Your task to perform on an android device: see sites visited before in the chrome app Image 0: 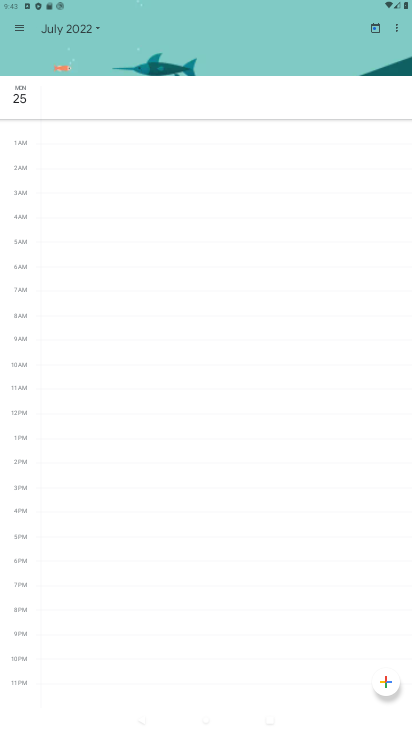
Step 0: press home button
Your task to perform on an android device: see sites visited before in the chrome app Image 1: 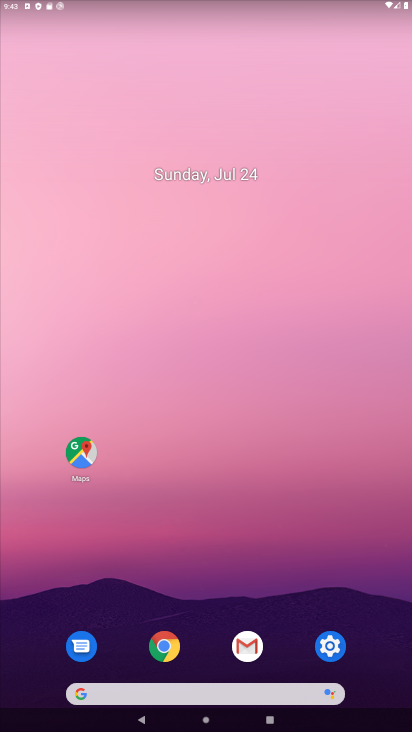
Step 1: click (186, 655)
Your task to perform on an android device: see sites visited before in the chrome app Image 2: 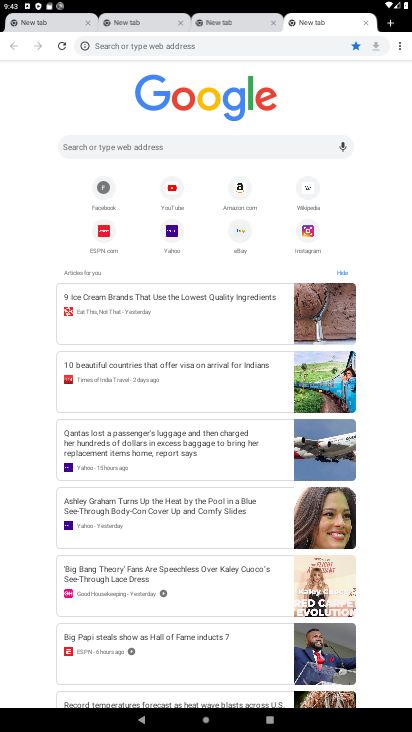
Step 2: click (397, 52)
Your task to perform on an android device: see sites visited before in the chrome app Image 3: 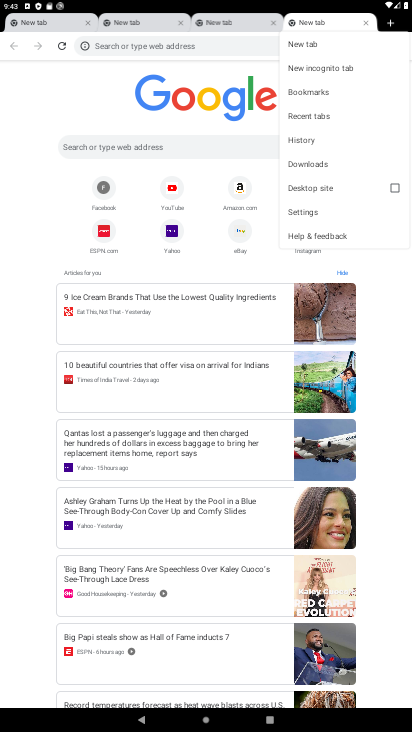
Step 3: click (307, 211)
Your task to perform on an android device: see sites visited before in the chrome app Image 4: 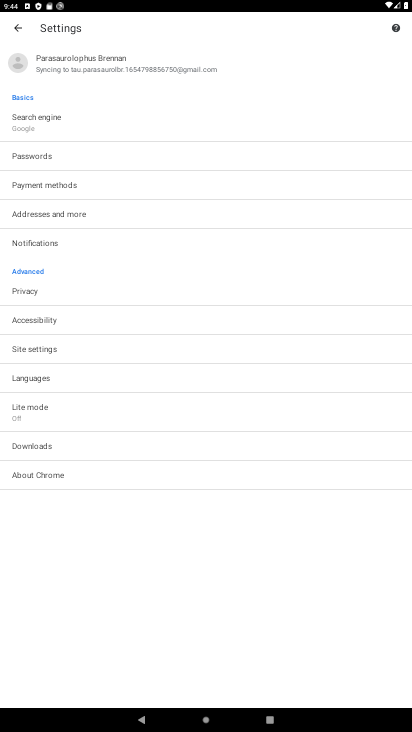
Step 4: click (41, 347)
Your task to perform on an android device: see sites visited before in the chrome app Image 5: 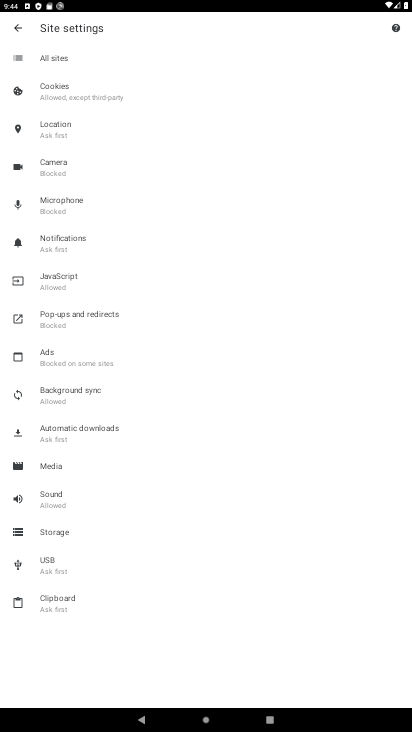
Step 5: click (56, 64)
Your task to perform on an android device: see sites visited before in the chrome app Image 6: 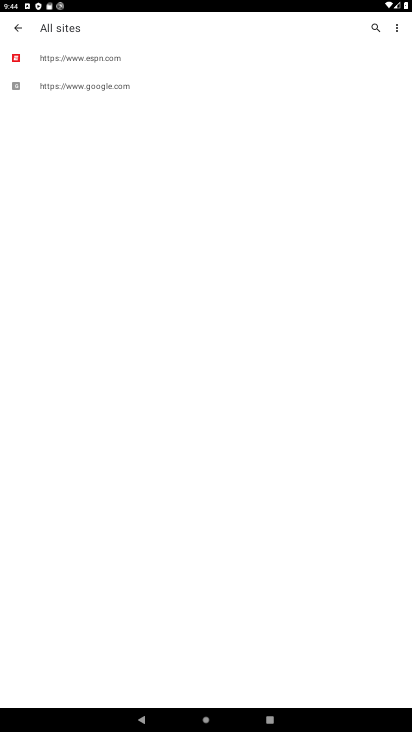
Step 6: task complete